Your task to perform on an android device: turn on the 12-hour format for clock Image 0: 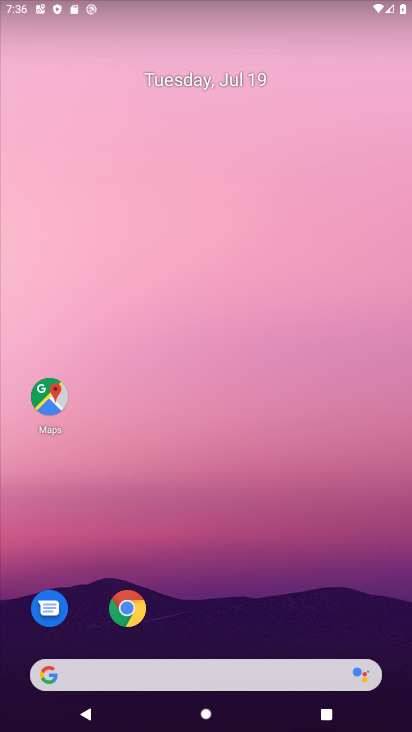
Step 0: drag from (170, 673) to (317, 97)
Your task to perform on an android device: turn on the 12-hour format for clock Image 1: 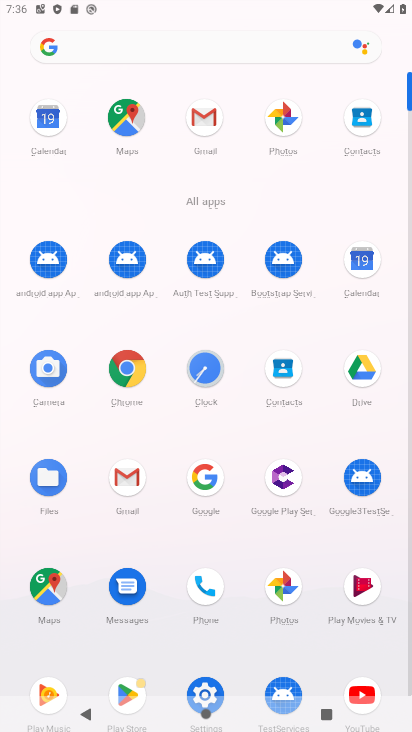
Step 1: click (207, 373)
Your task to perform on an android device: turn on the 12-hour format for clock Image 2: 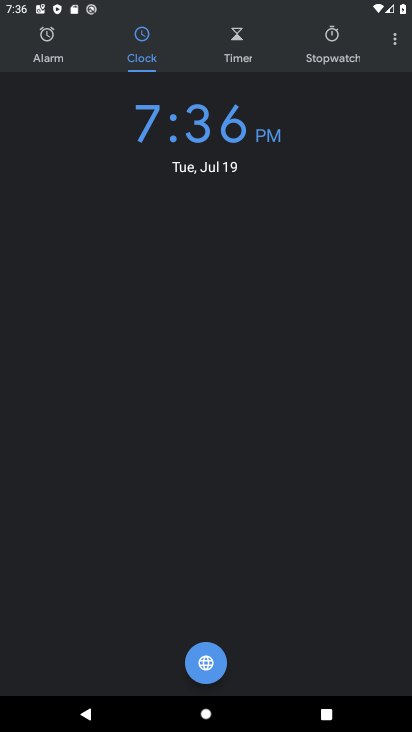
Step 2: click (398, 39)
Your task to perform on an android device: turn on the 12-hour format for clock Image 3: 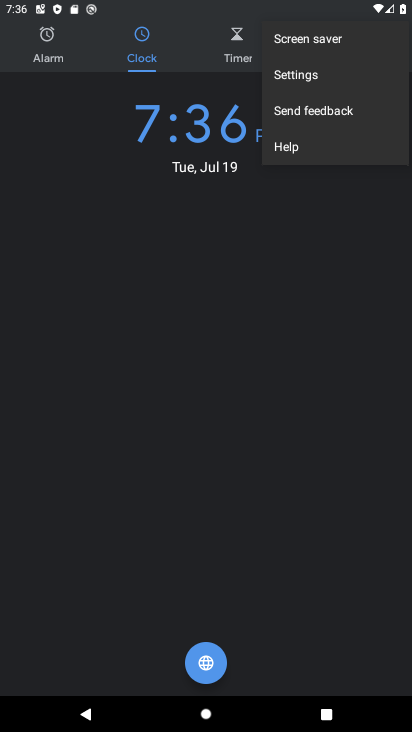
Step 3: click (316, 75)
Your task to perform on an android device: turn on the 12-hour format for clock Image 4: 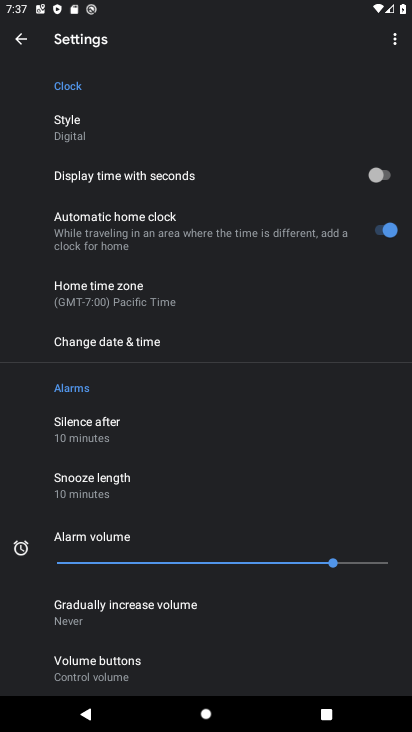
Step 4: click (116, 345)
Your task to perform on an android device: turn on the 12-hour format for clock Image 5: 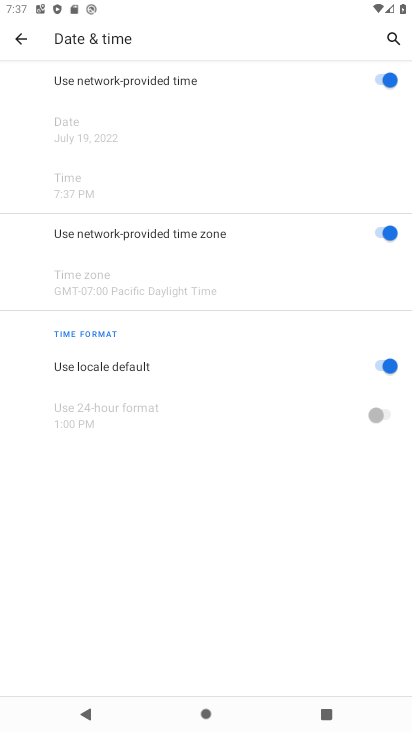
Step 5: task complete